Your task to perform on an android device: turn smart compose on in the gmail app Image 0: 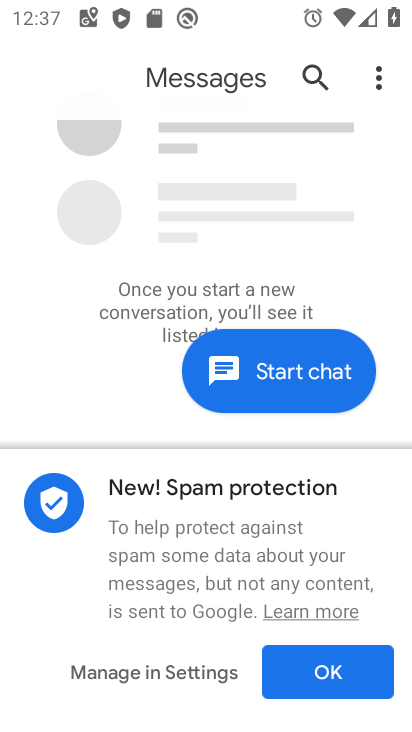
Step 0: press home button
Your task to perform on an android device: turn smart compose on in the gmail app Image 1: 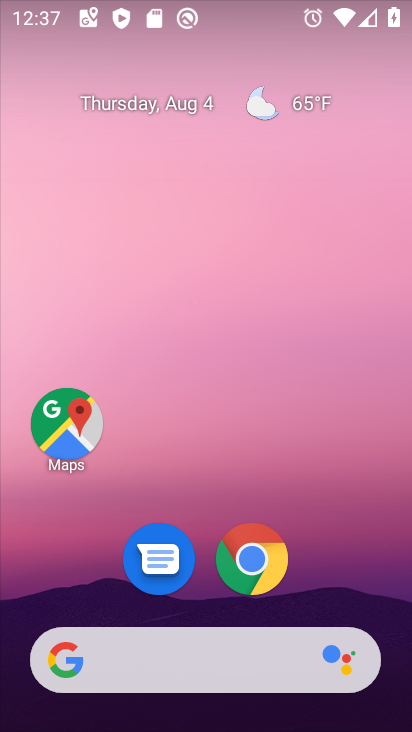
Step 1: drag from (192, 672) to (261, 2)
Your task to perform on an android device: turn smart compose on in the gmail app Image 2: 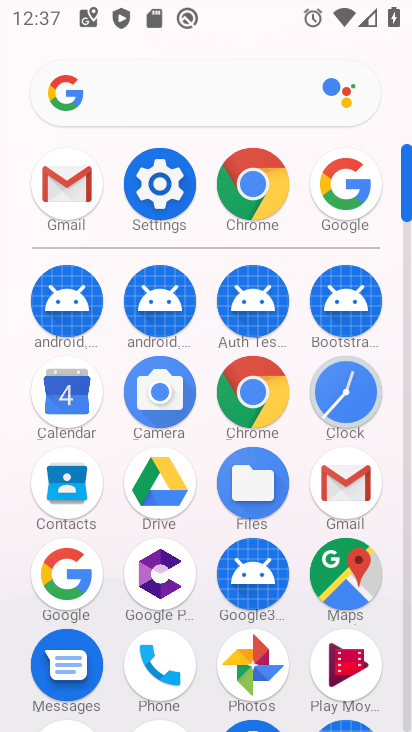
Step 2: click (68, 177)
Your task to perform on an android device: turn smart compose on in the gmail app Image 3: 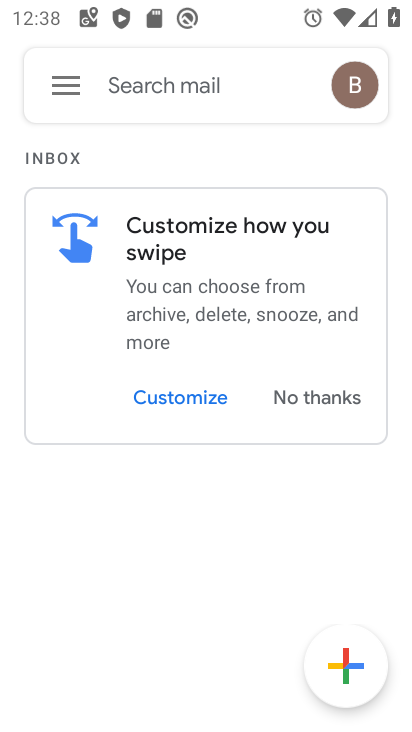
Step 3: click (68, 91)
Your task to perform on an android device: turn smart compose on in the gmail app Image 4: 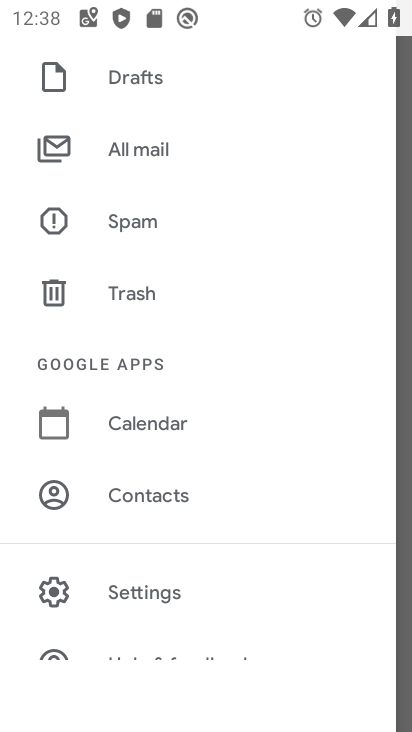
Step 4: click (143, 589)
Your task to perform on an android device: turn smart compose on in the gmail app Image 5: 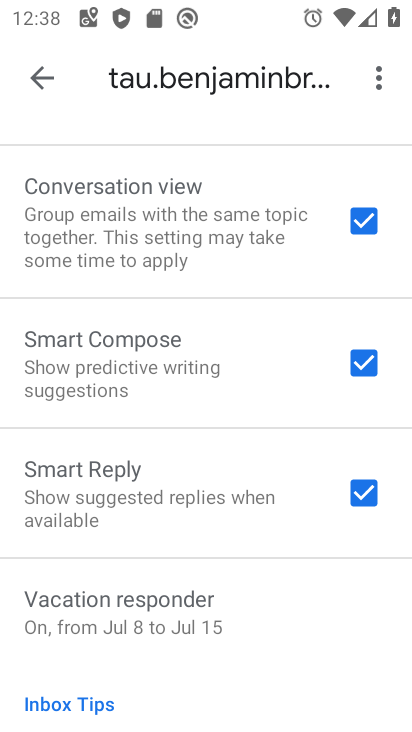
Step 5: task complete